Your task to perform on an android device: Search for pizza restaurants on Maps Image 0: 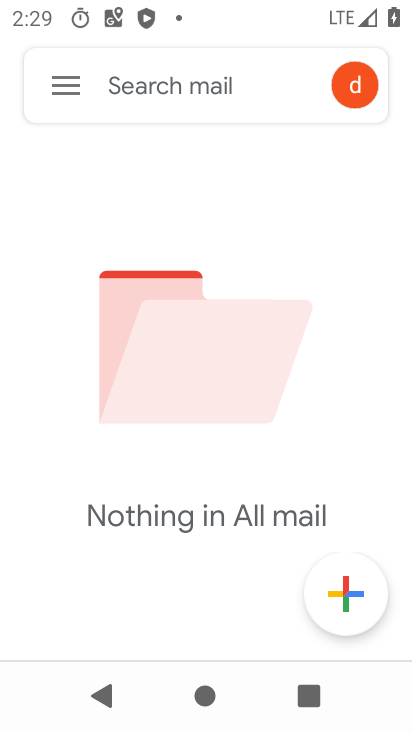
Step 0: press home button
Your task to perform on an android device: Search for pizza restaurants on Maps Image 1: 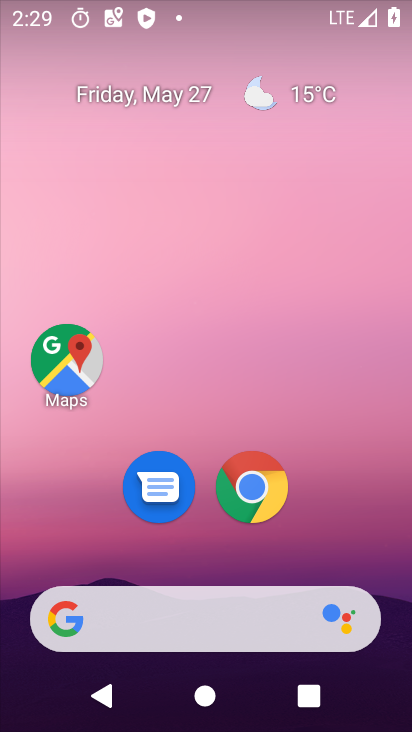
Step 1: drag from (349, 466) to (399, 125)
Your task to perform on an android device: Search for pizza restaurants on Maps Image 2: 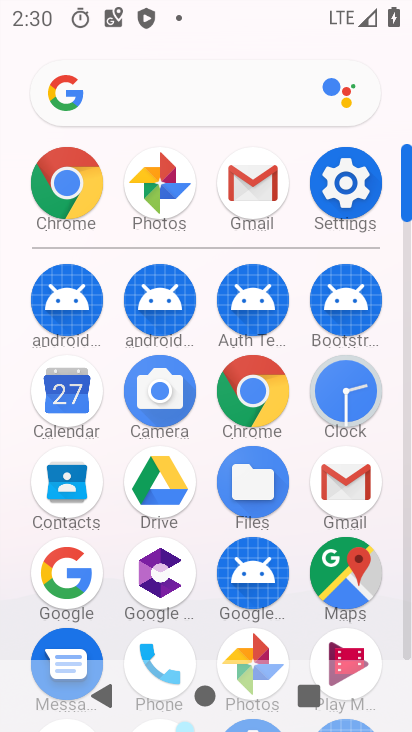
Step 2: click (343, 570)
Your task to perform on an android device: Search for pizza restaurants on Maps Image 3: 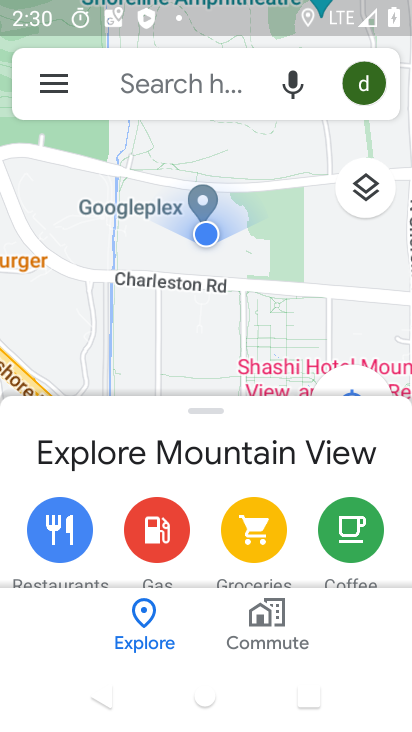
Step 3: click (130, 83)
Your task to perform on an android device: Search for pizza restaurants on Maps Image 4: 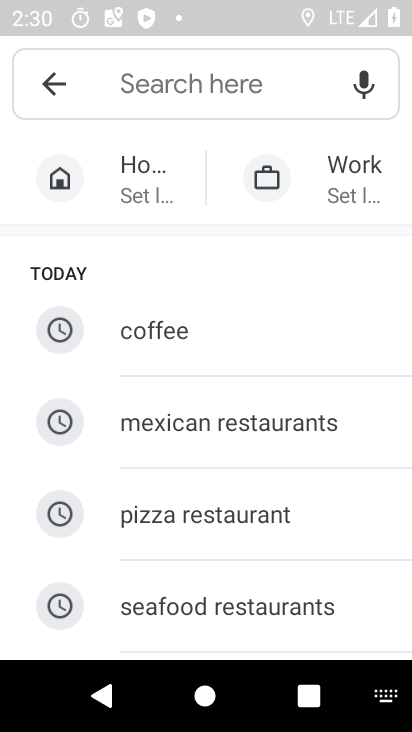
Step 4: type "pizza restaurants"
Your task to perform on an android device: Search for pizza restaurants on Maps Image 5: 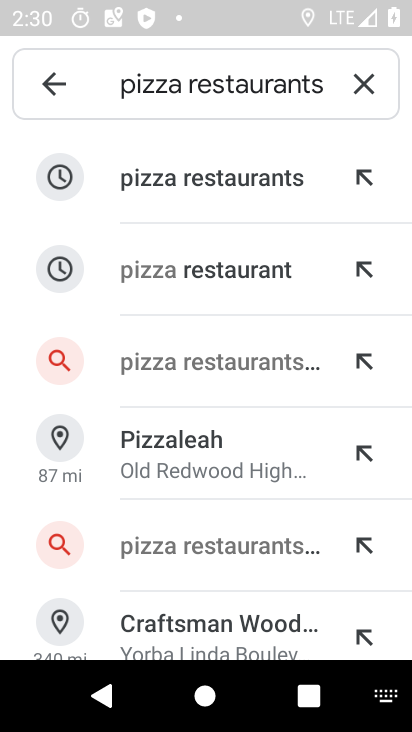
Step 5: click (302, 184)
Your task to perform on an android device: Search for pizza restaurants on Maps Image 6: 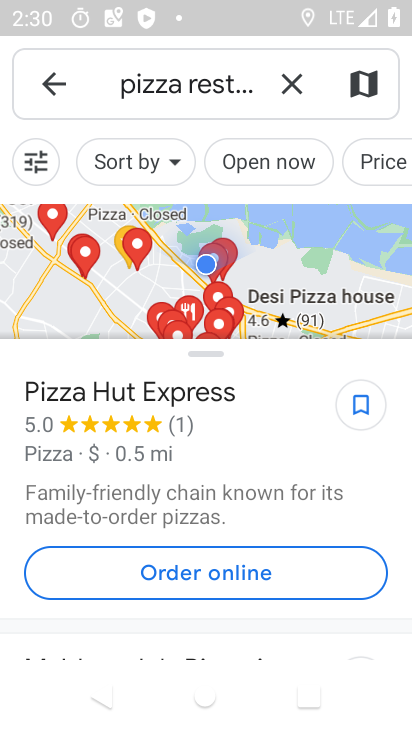
Step 6: task complete